Your task to perform on an android device: Search for "logitech g910" on bestbuy.com, select the first entry, add it to the cart, then select checkout. Image 0: 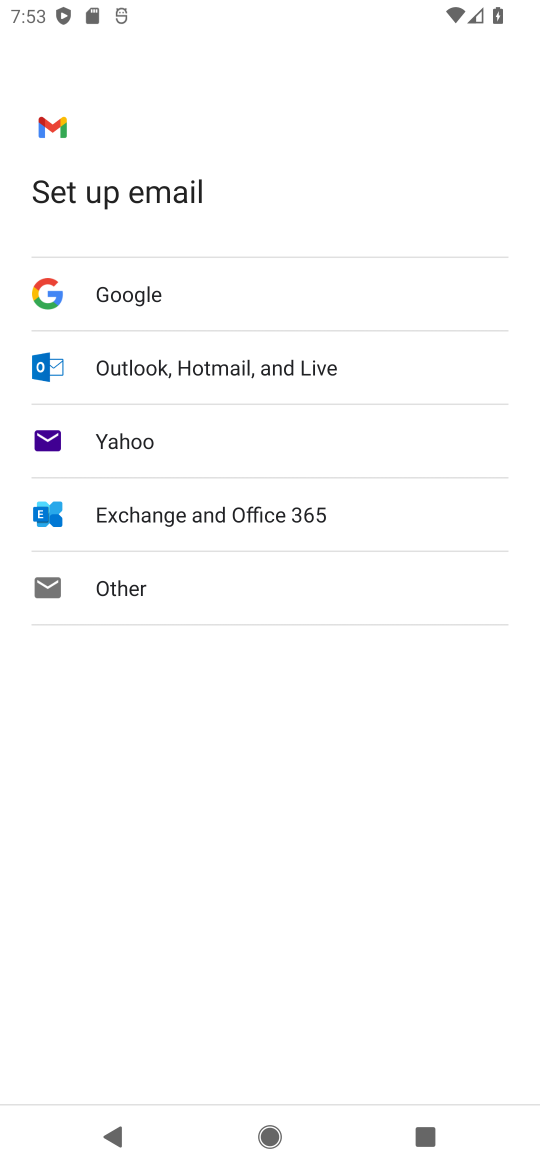
Step 0: press home button
Your task to perform on an android device: Search for "logitech g910" on bestbuy.com, select the first entry, add it to the cart, then select checkout. Image 1: 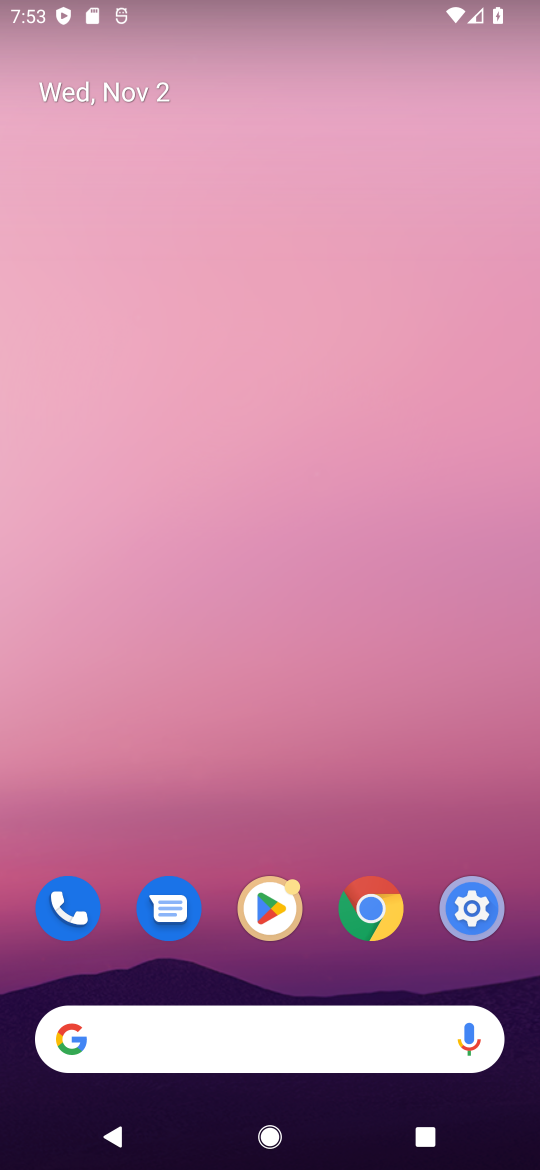
Step 1: click (273, 1061)
Your task to perform on an android device: Search for "logitech g910" on bestbuy.com, select the first entry, add it to the cart, then select checkout. Image 2: 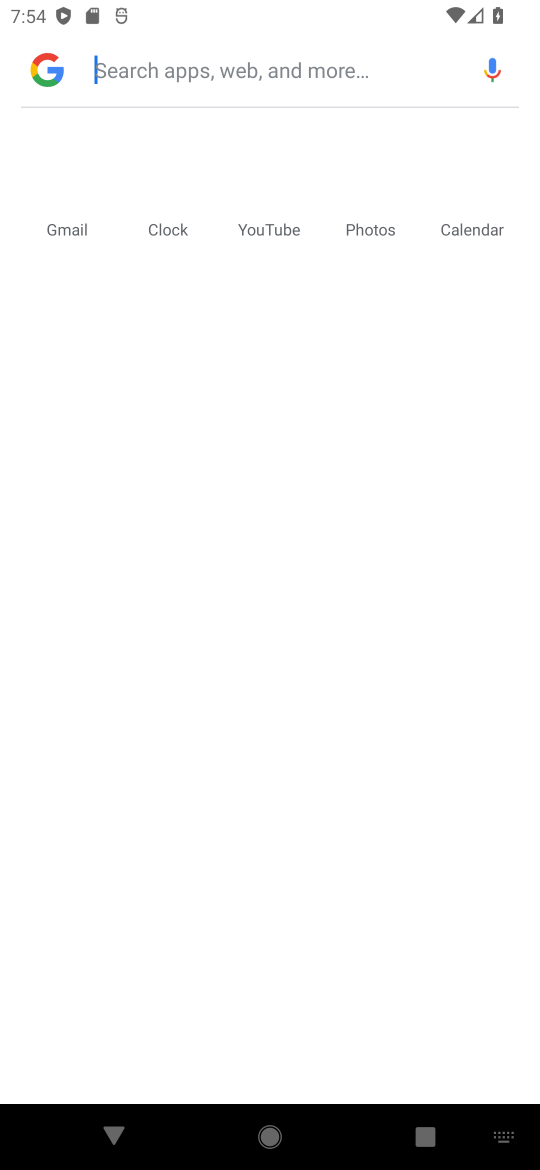
Step 2: type "bestbuy.com"
Your task to perform on an android device: Search for "logitech g910" on bestbuy.com, select the first entry, add it to the cart, then select checkout. Image 3: 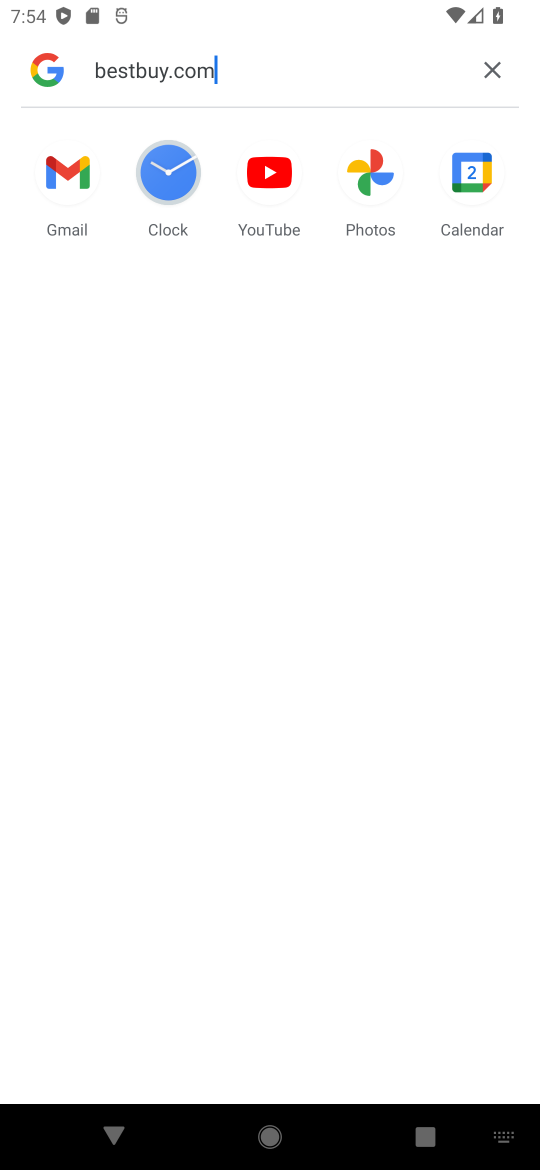
Step 3: type ""
Your task to perform on an android device: Search for "logitech g910" on bestbuy.com, select the first entry, add it to the cart, then select checkout. Image 4: 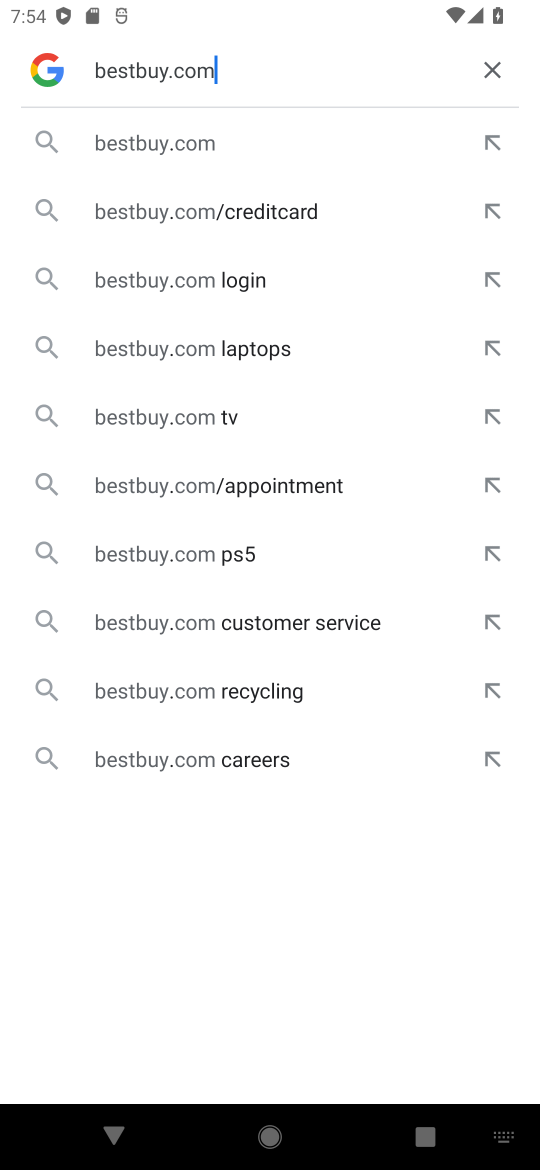
Step 4: press enter
Your task to perform on an android device: Search for "logitech g910" on bestbuy.com, select the first entry, add it to the cart, then select checkout. Image 5: 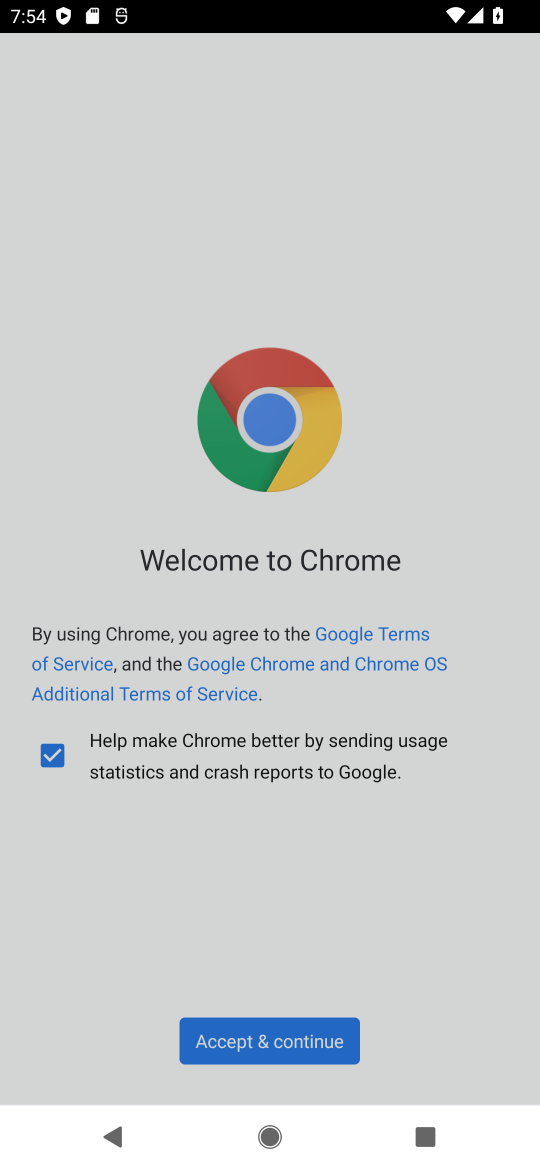
Step 5: click (289, 1042)
Your task to perform on an android device: Search for "logitech g910" on bestbuy.com, select the first entry, add it to the cart, then select checkout. Image 6: 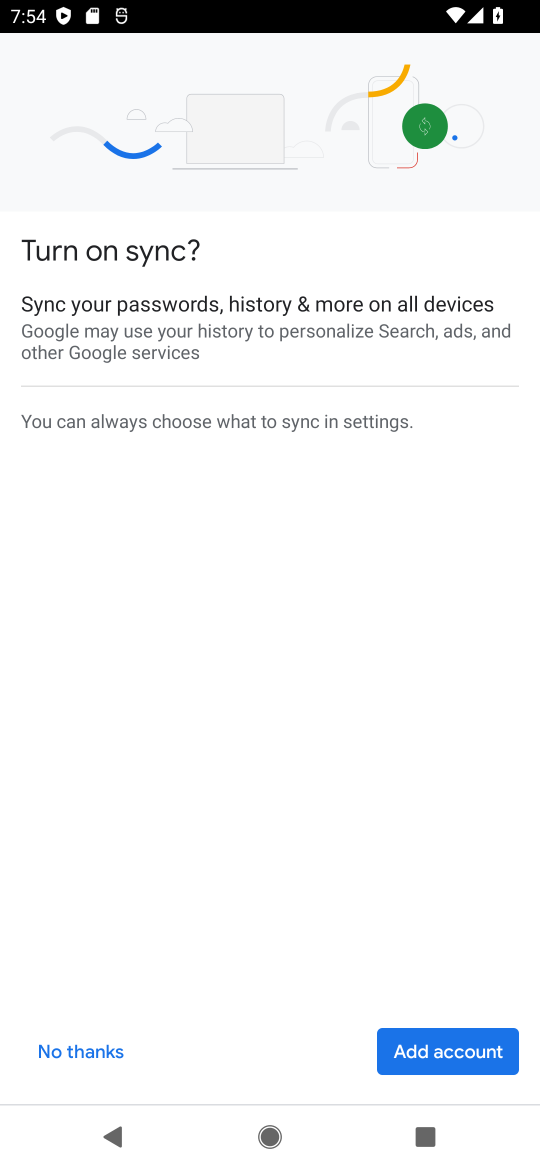
Step 6: click (442, 1042)
Your task to perform on an android device: Search for "logitech g910" on bestbuy.com, select the first entry, add it to the cart, then select checkout. Image 7: 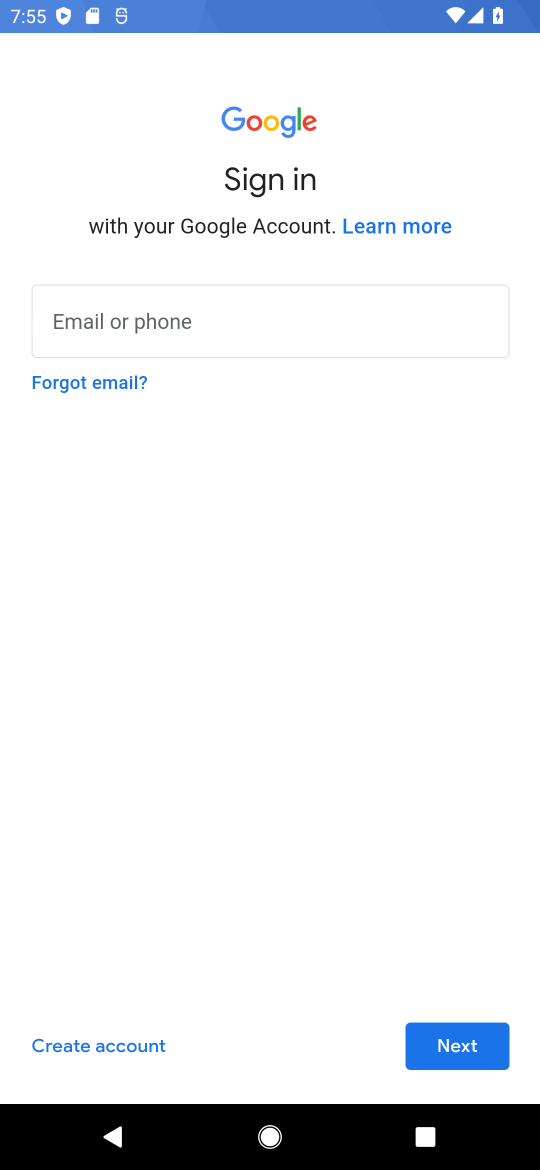
Step 7: click (454, 1060)
Your task to perform on an android device: Search for "logitech g910" on bestbuy.com, select the first entry, add it to the cart, then select checkout. Image 8: 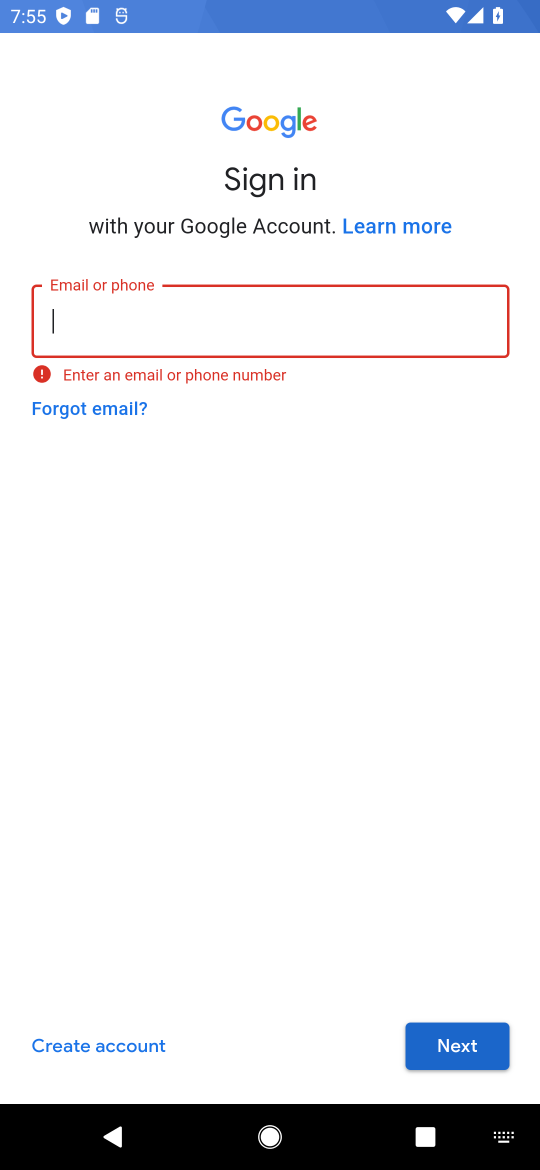
Step 8: task complete